Your task to perform on an android device: turn on airplane mode Image 0: 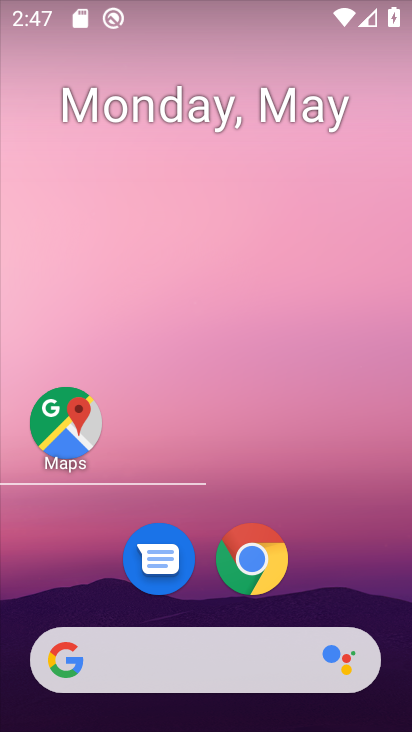
Step 0: click (262, 569)
Your task to perform on an android device: turn on airplane mode Image 1: 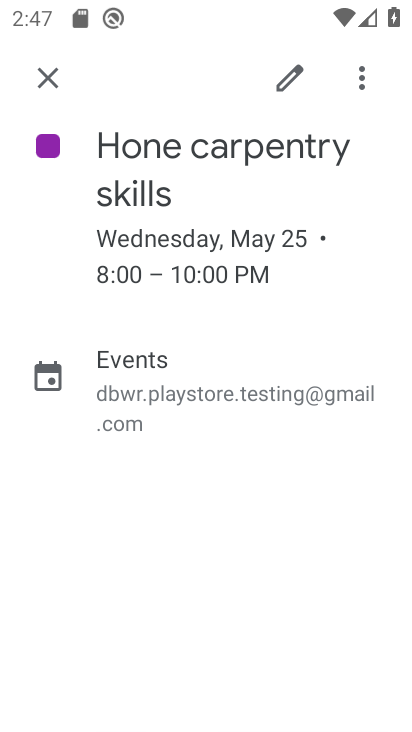
Step 1: press home button
Your task to perform on an android device: turn on airplane mode Image 2: 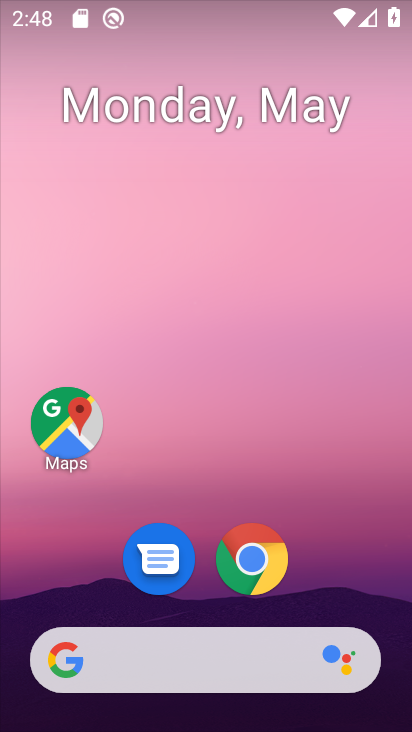
Step 2: drag from (331, 591) to (278, 171)
Your task to perform on an android device: turn on airplane mode Image 3: 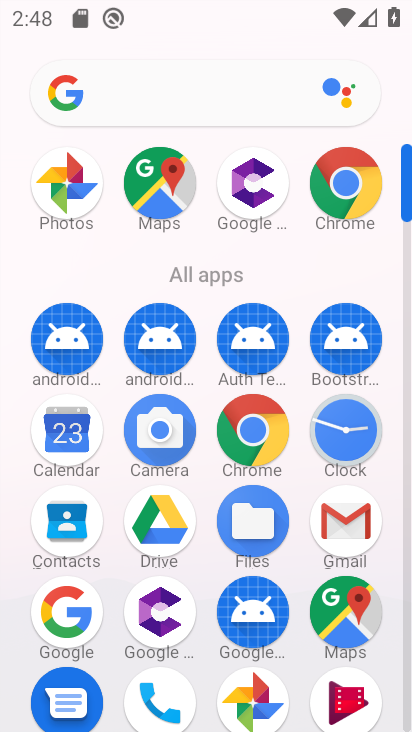
Step 3: drag from (195, 647) to (174, 388)
Your task to perform on an android device: turn on airplane mode Image 4: 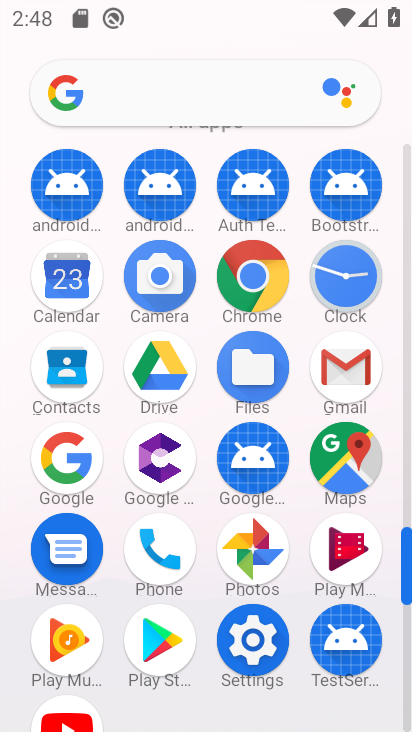
Step 4: click (250, 644)
Your task to perform on an android device: turn on airplane mode Image 5: 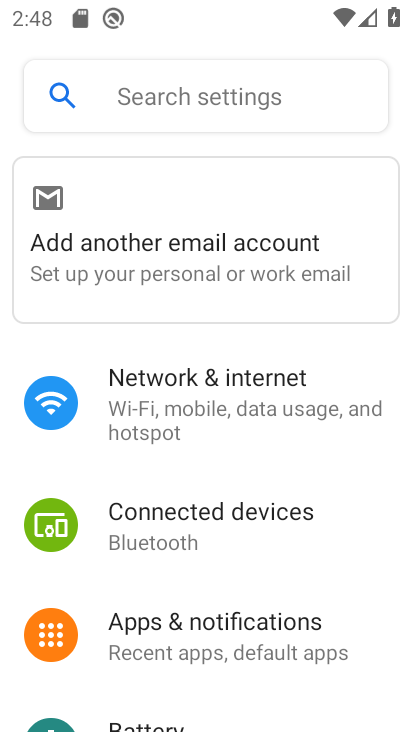
Step 5: click (195, 416)
Your task to perform on an android device: turn on airplane mode Image 6: 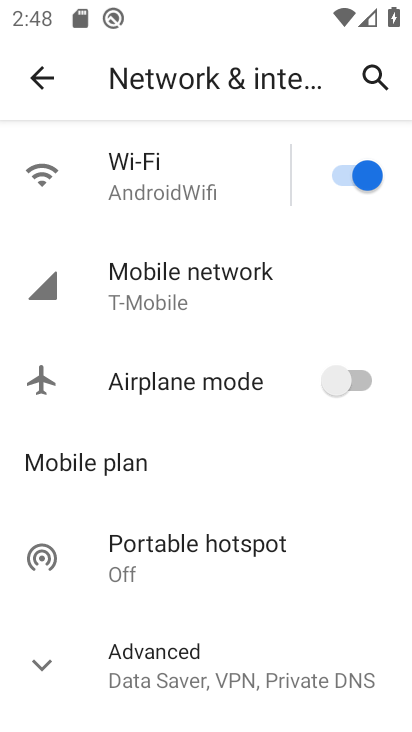
Step 6: click (366, 378)
Your task to perform on an android device: turn on airplane mode Image 7: 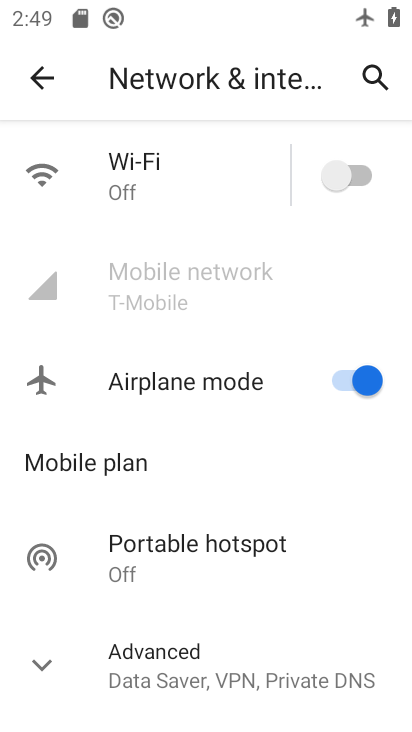
Step 7: task complete